Your task to perform on an android device: Go to sound settings Image 0: 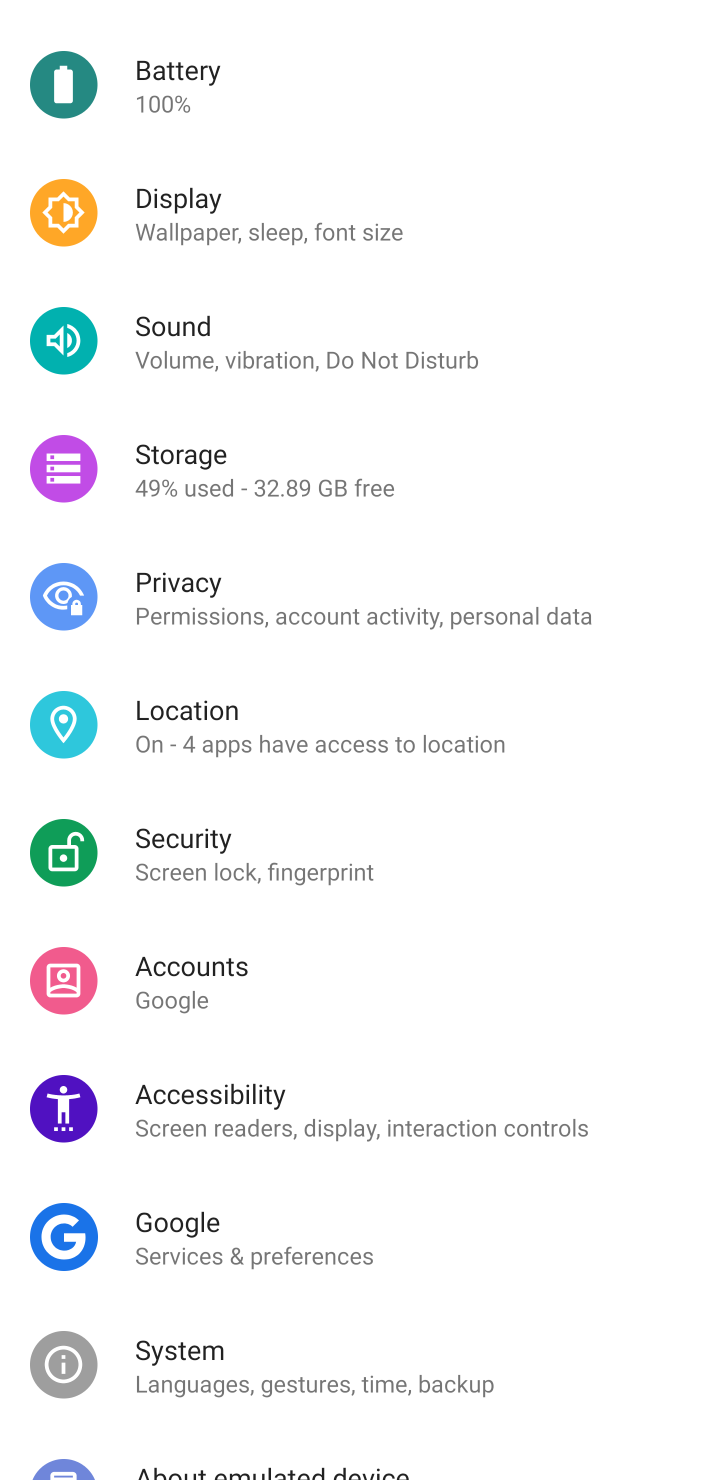
Step 0: press home button
Your task to perform on an android device: Go to sound settings Image 1: 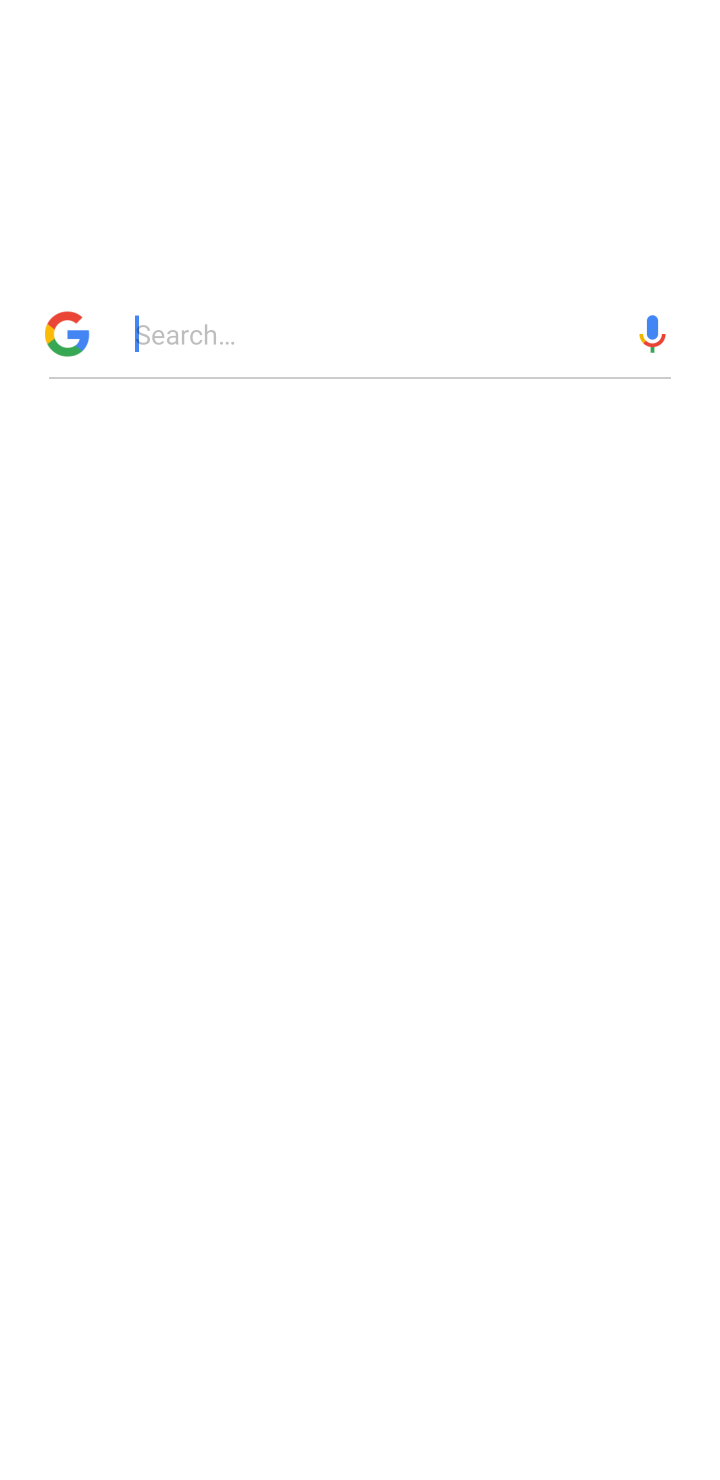
Step 1: press home button
Your task to perform on an android device: Go to sound settings Image 2: 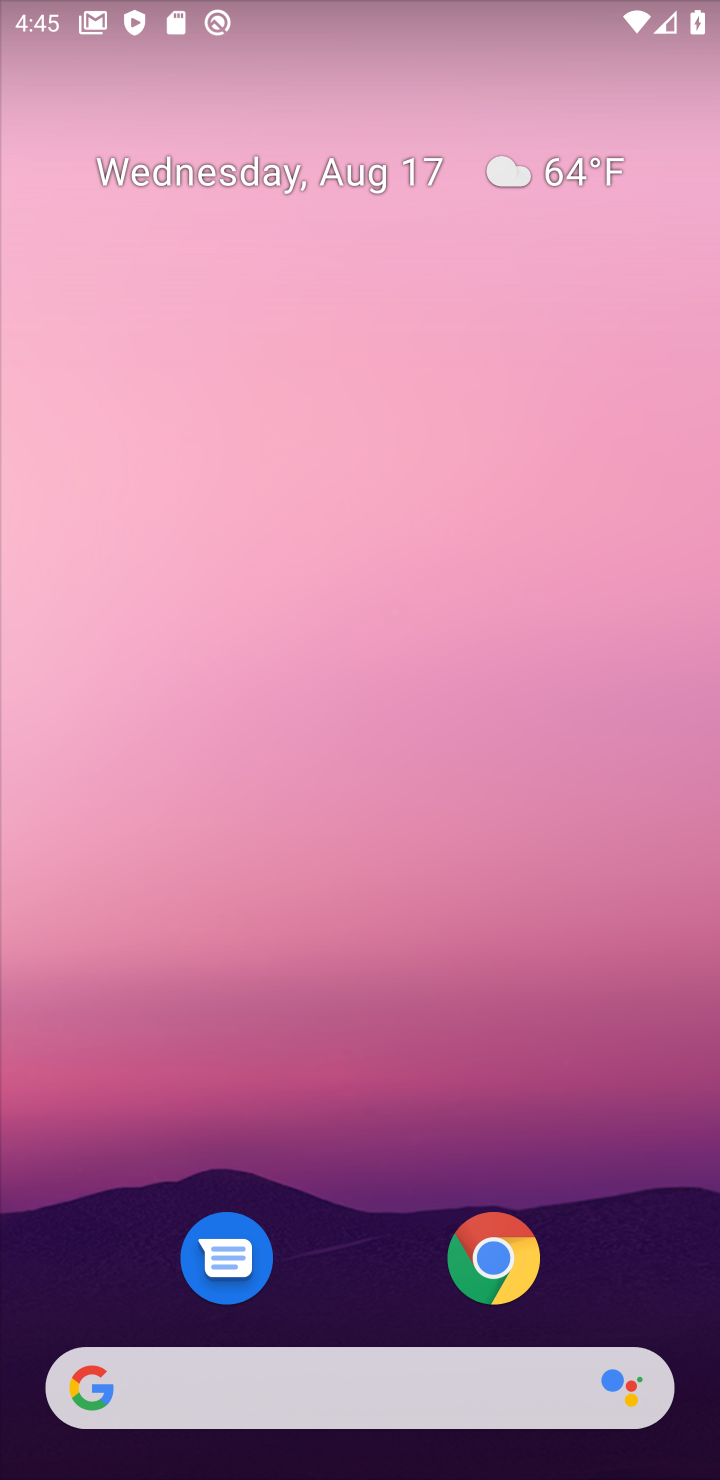
Step 2: press home button
Your task to perform on an android device: Go to sound settings Image 3: 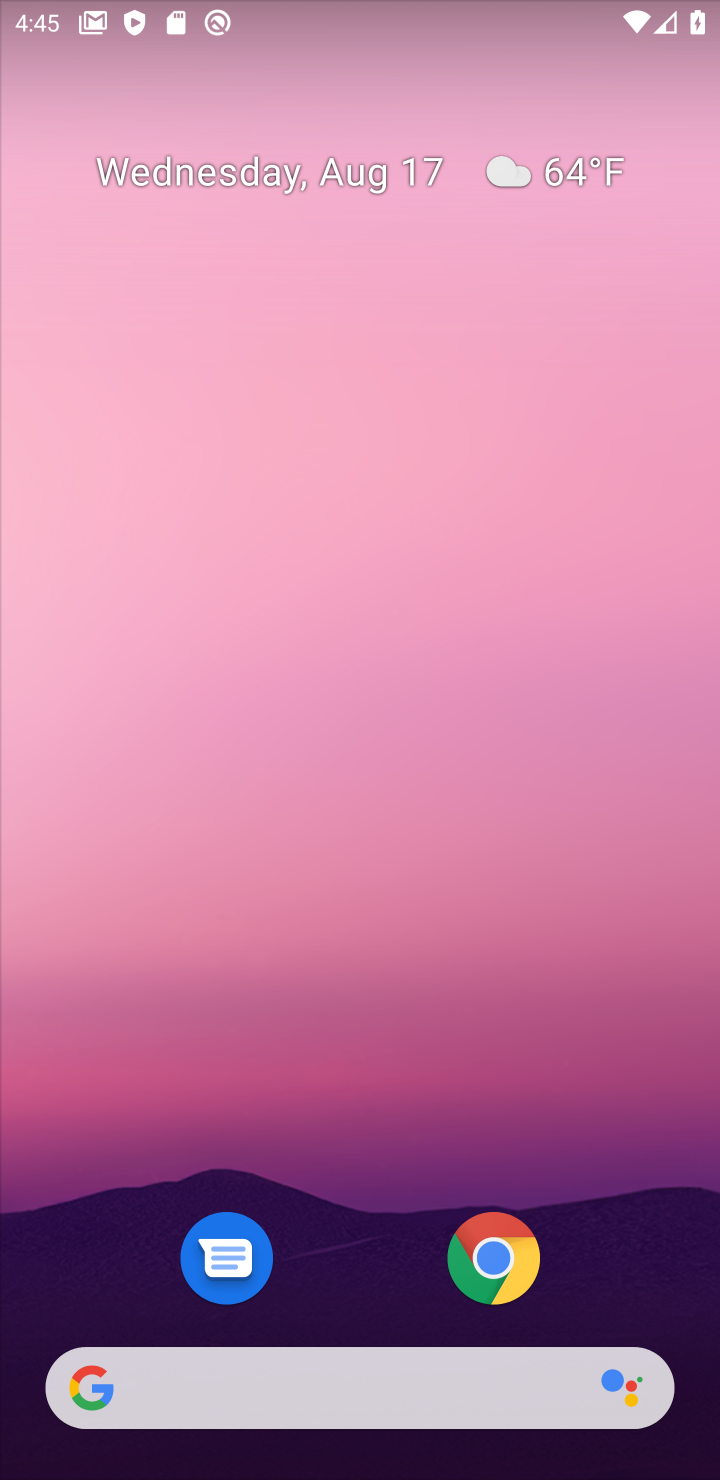
Step 3: drag from (365, 1162) to (450, 186)
Your task to perform on an android device: Go to sound settings Image 4: 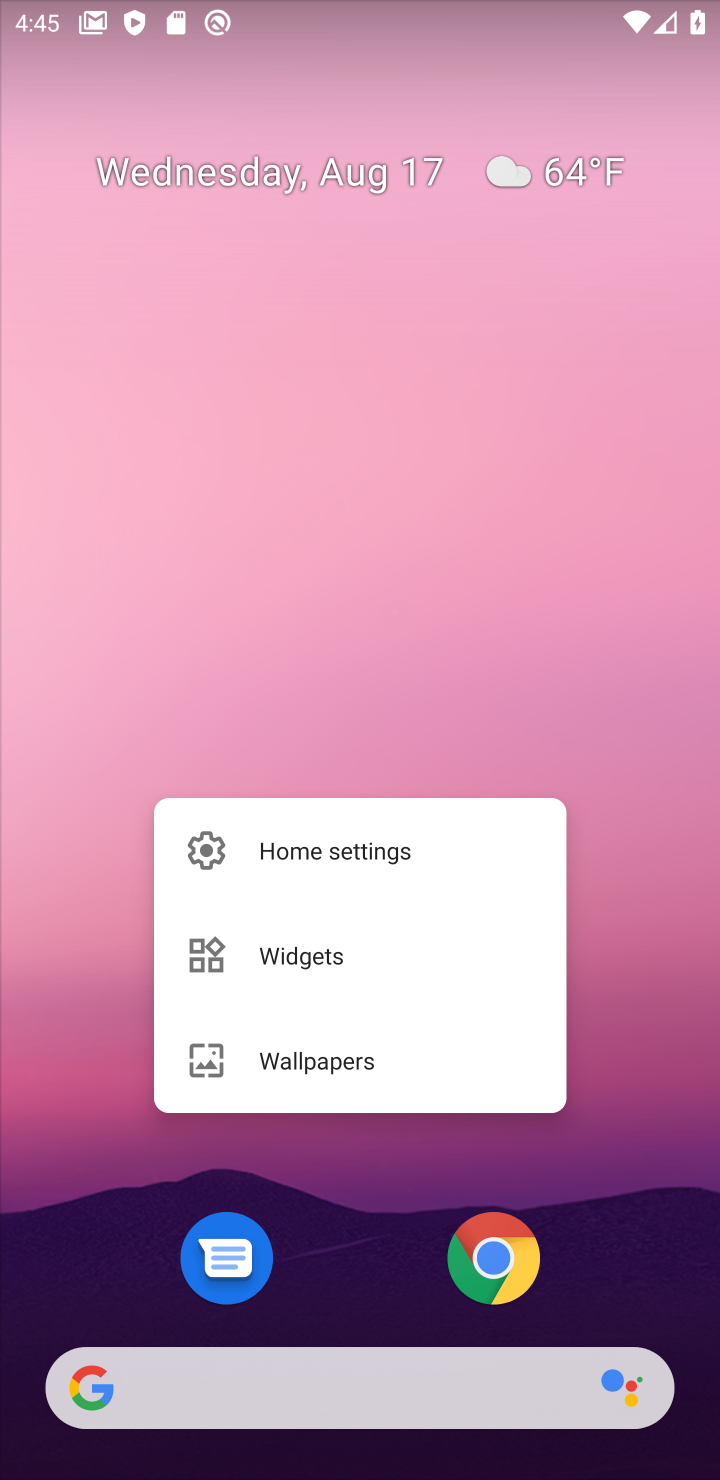
Step 4: click (384, 1189)
Your task to perform on an android device: Go to sound settings Image 5: 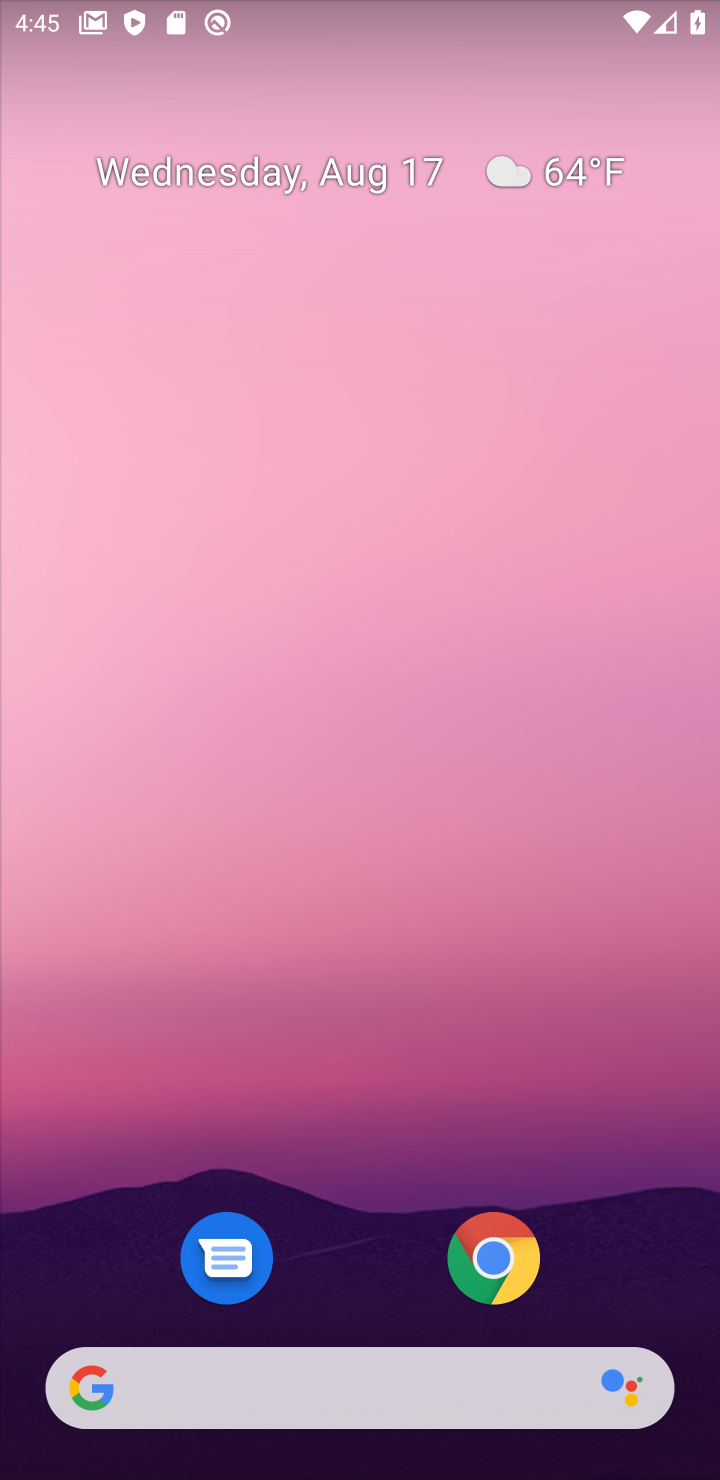
Step 5: drag from (365, 1208) to (321, 56)
Your task to perform on an android device: Go to sound settings Image 6: 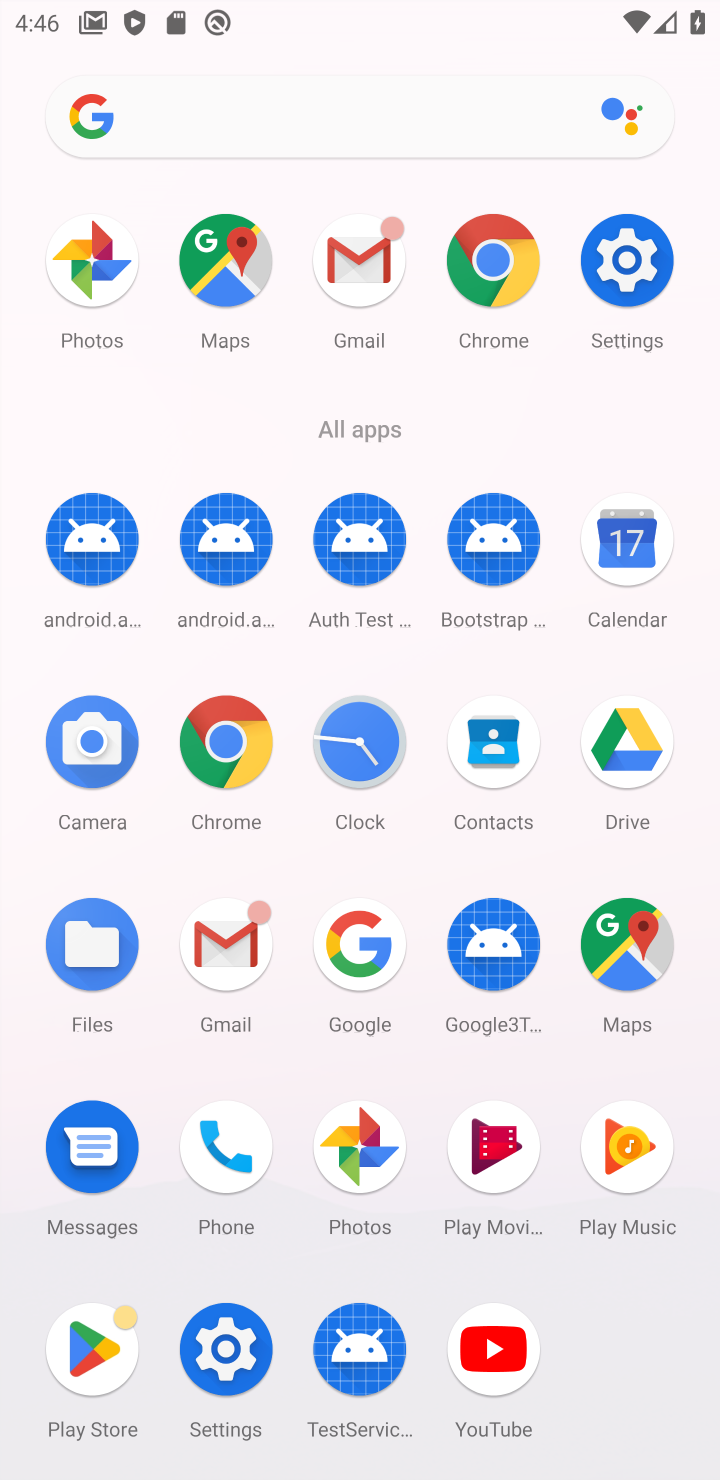
Step 6: click (243, 1346)
Your task to perform on an android device: Go to sound settings Image 7: 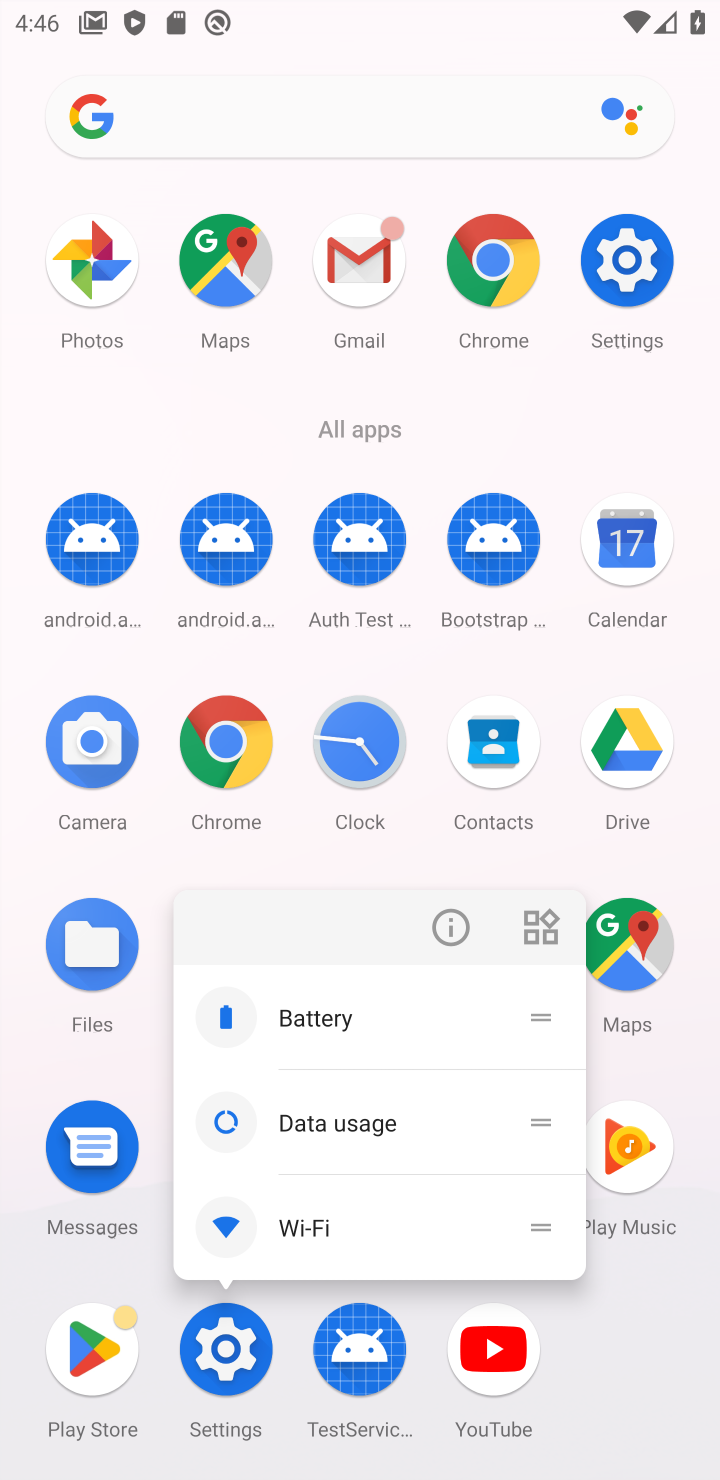
Step 7: click (209, 1357)
Your task to perform on an android device: Go to sound settings Image 8: 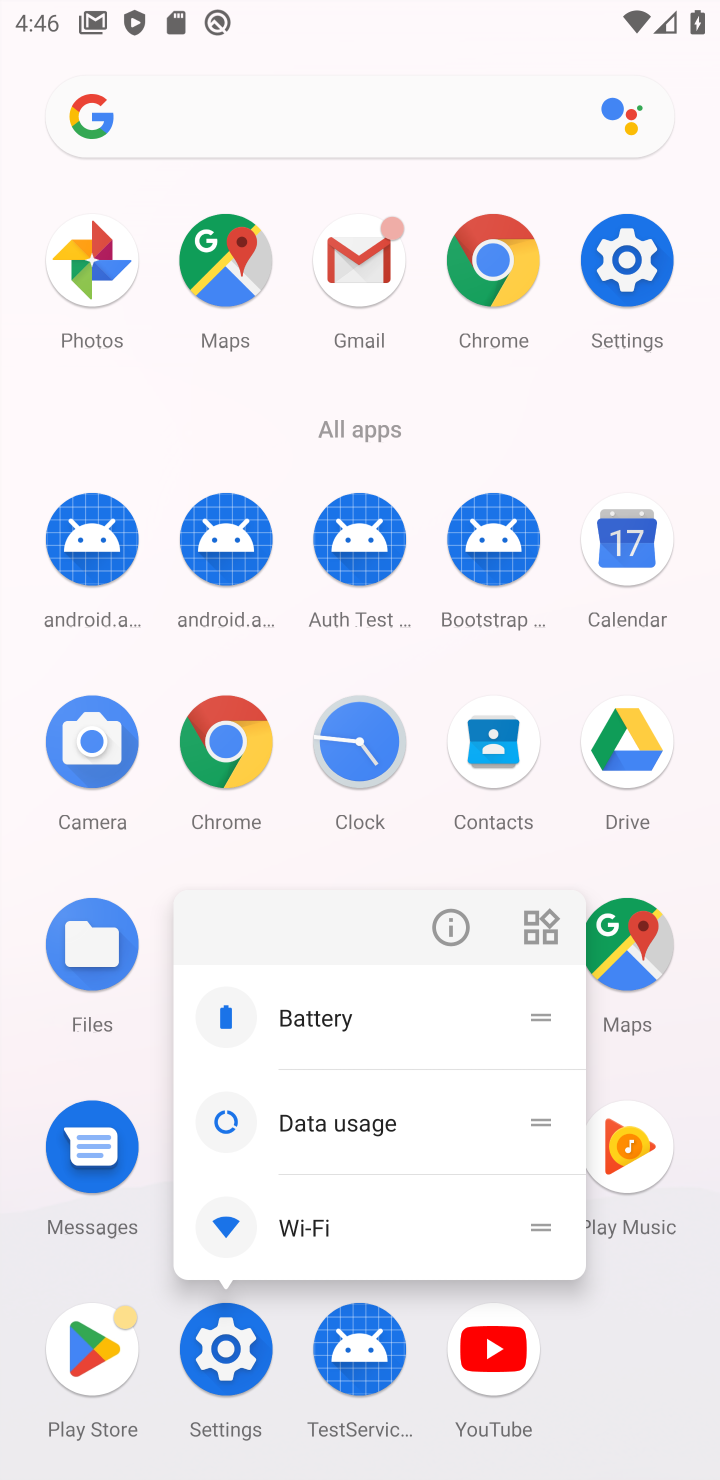
Step 8: click (216, 1344)
Your task to perform on an android device: Go to sound settings Image 9: 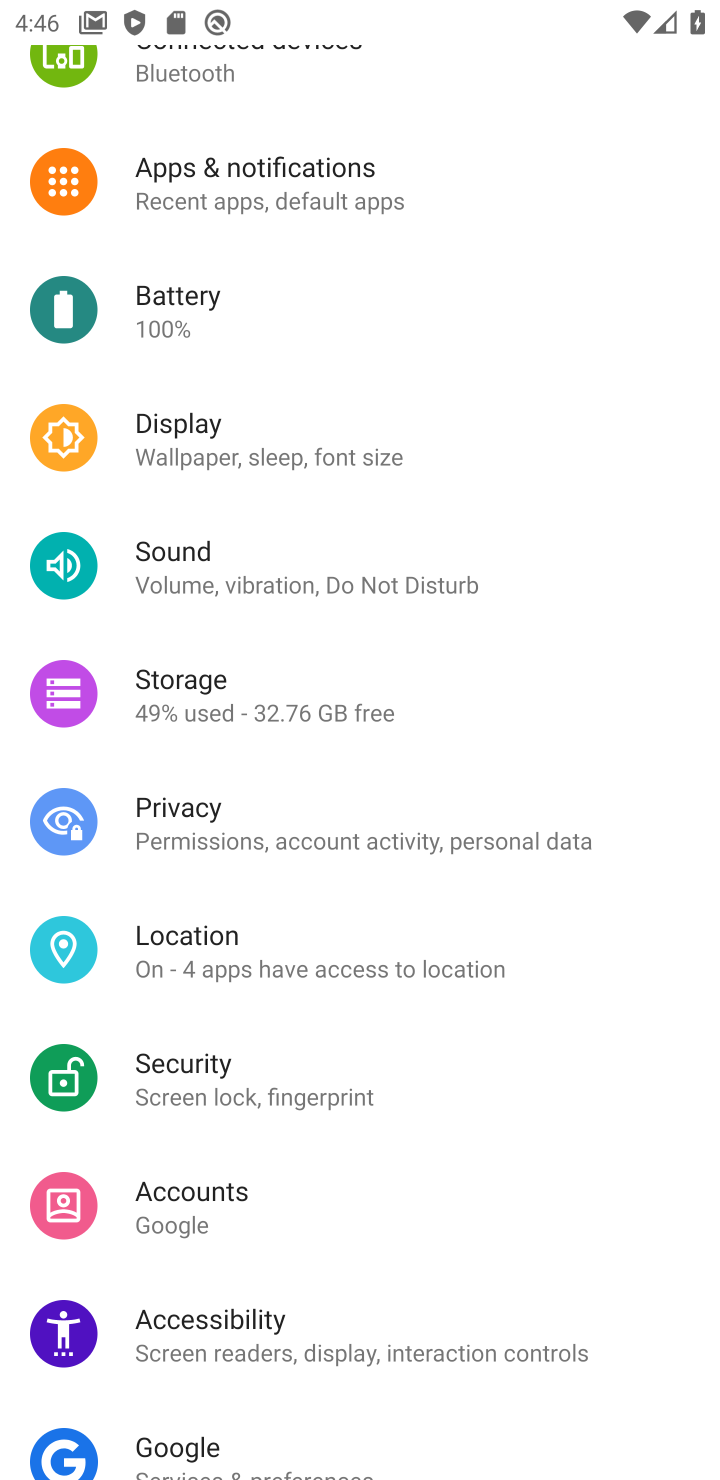
Step 9: drag from (398, 335) to (418, 865)
Your task to perform on an android device: Go to sound settings Image 10: 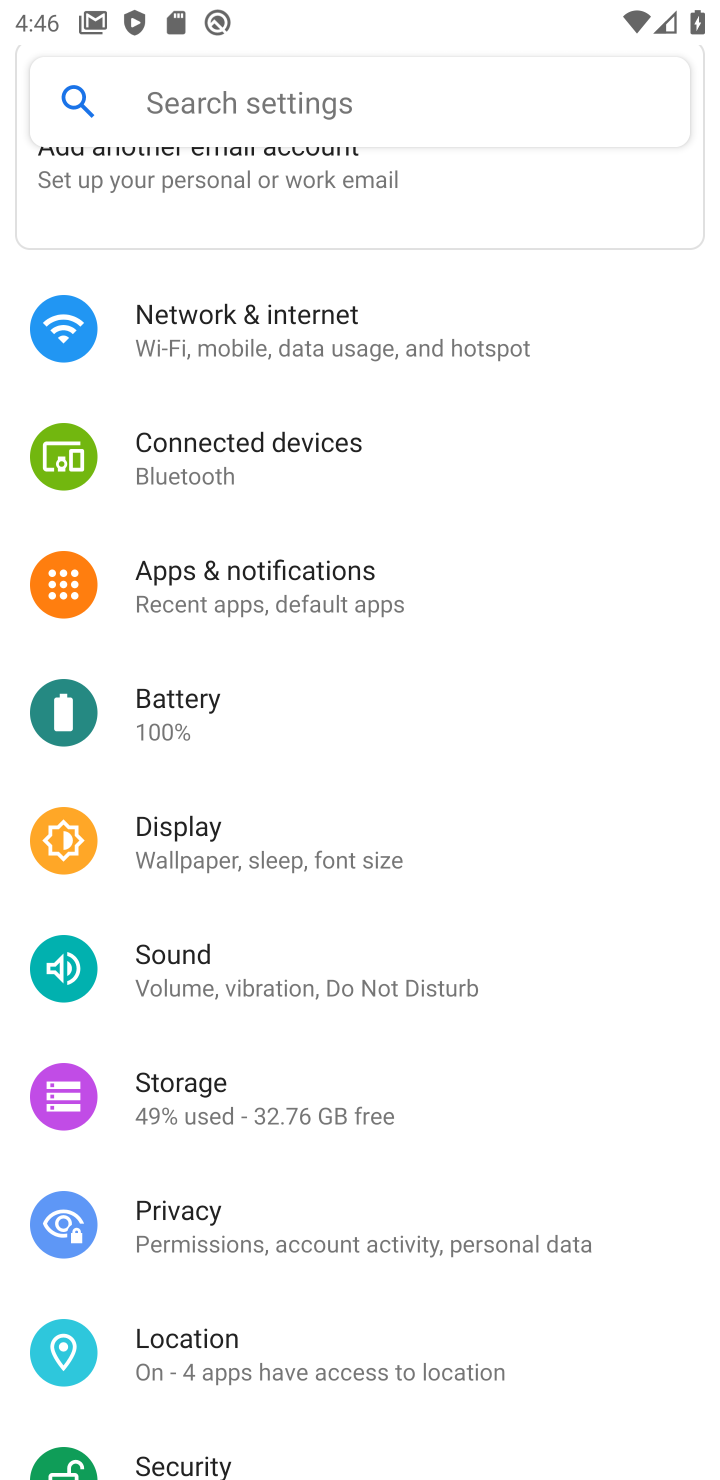
Step 10: click (196, 960)
Your task to perform on an android device: Go to sound settings Image 11: 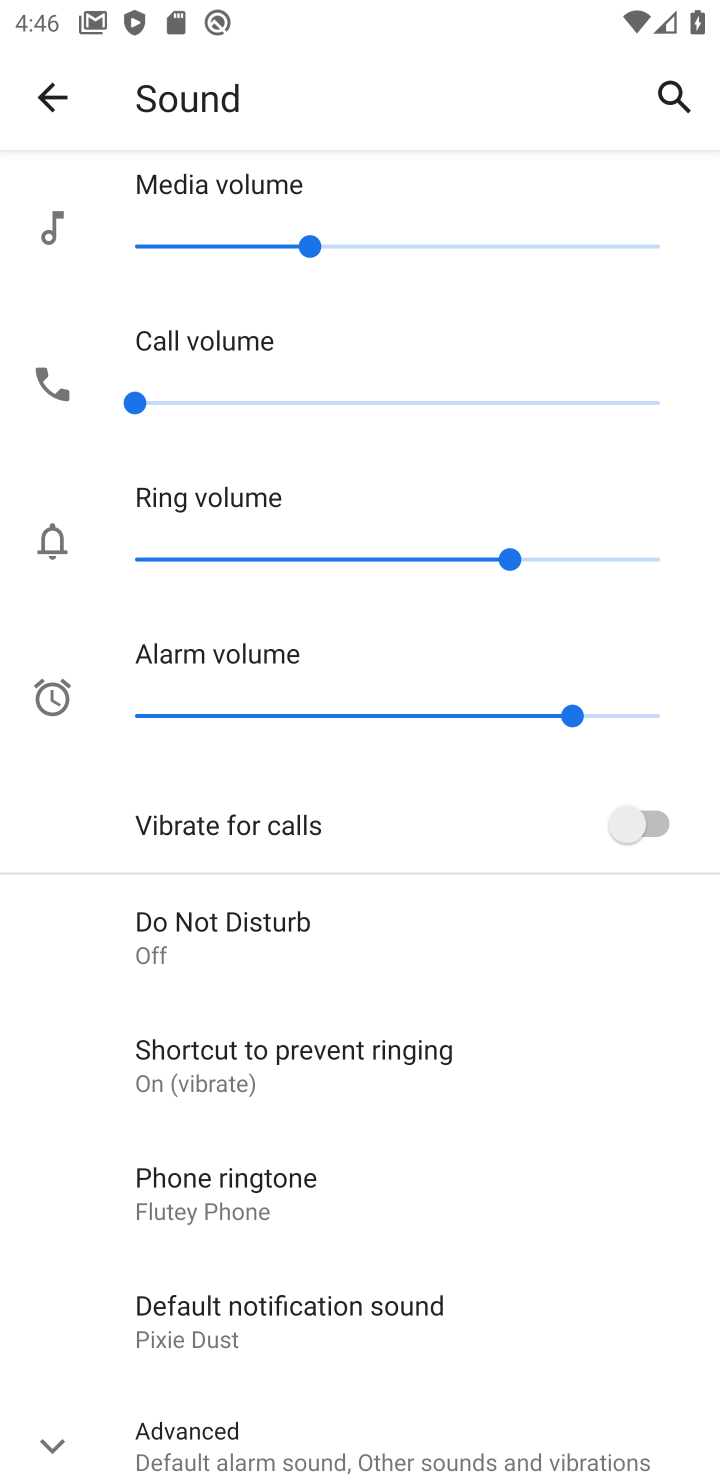
Step 11: task complete